Your task to perform on an android device: find which apps use the phone's location Image 0: 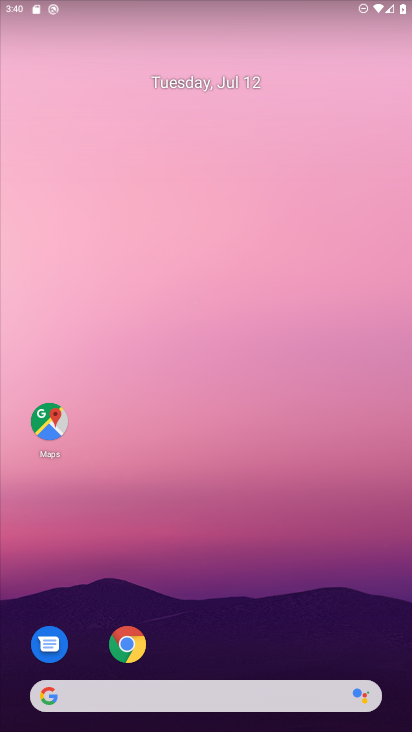
Step 0: drag from (236, 604) to (255, 156)
Your task to perform on an android device: find which apps use the phone's location Image 1: 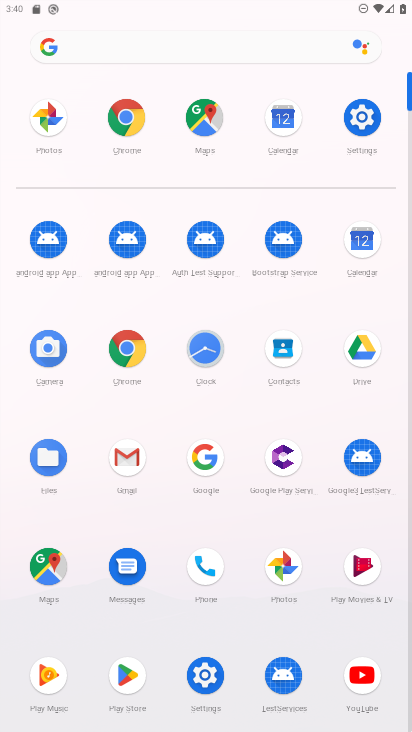
Step 1: click (372, 114)
Your task to perform on an android device: find which apps use the phone's location Image 2: 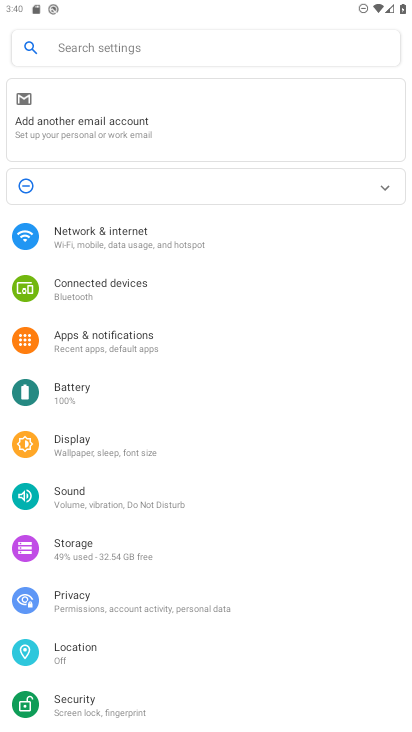
Step 2: click (105, 652)
Your task to perform on an android device: find which apps use the phone's location Image 3: 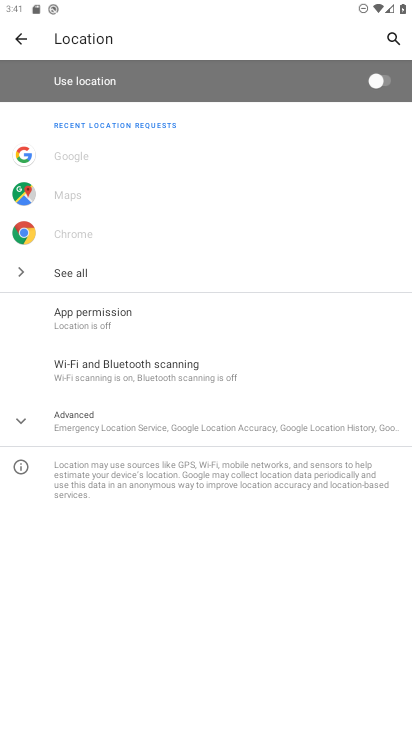
Step 3: click (100, 314)
Your task to perform on an android device: find which apps use the phone's location Image 4: 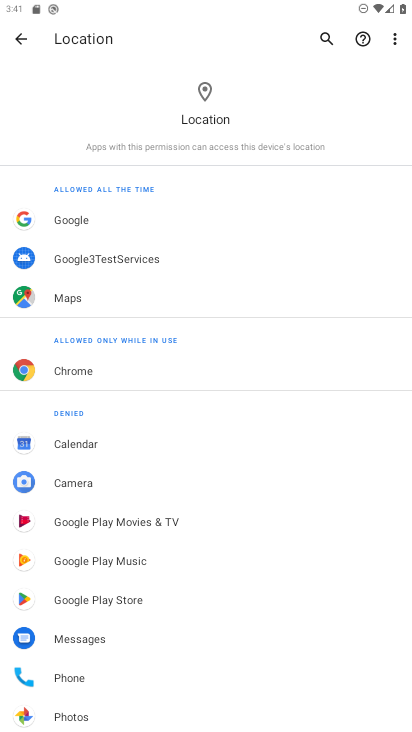
Step 4: task complete